Your task to perform on an android device: see tabs open on other devices in the chrome app Image 0: 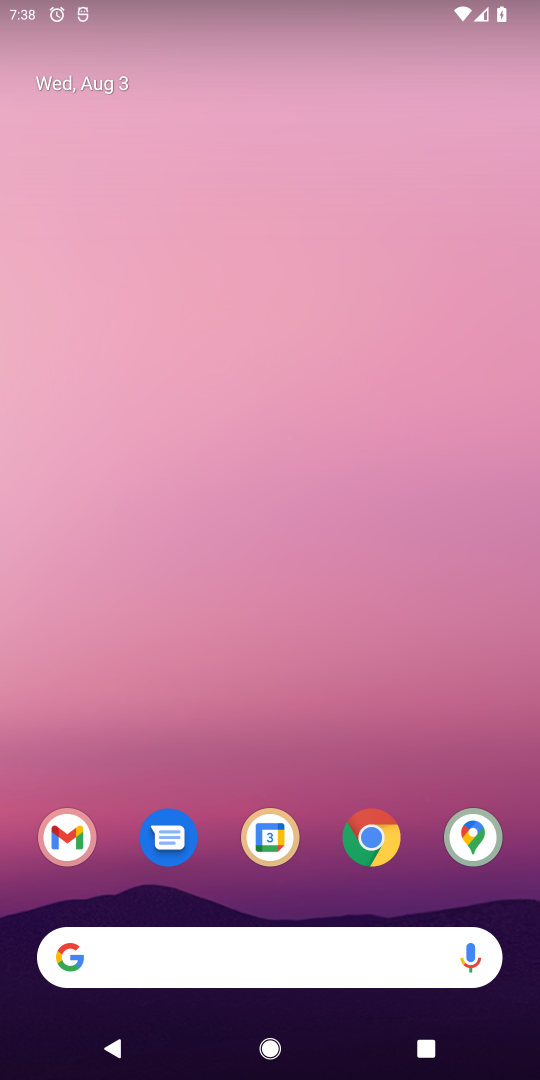
Step 0: press home button
Your task to perform on an android device: see tabs open on other devices in the chrome app Image 1: 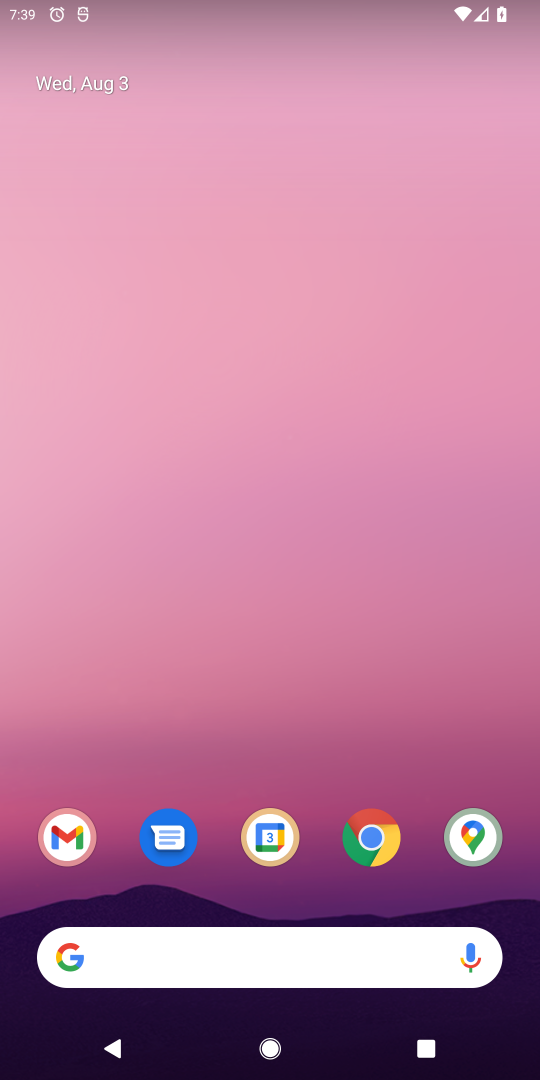
Step 1: click (379, 826)
Your task to perform on an android device: see tabs open on other devices in the chrome app Image 2: 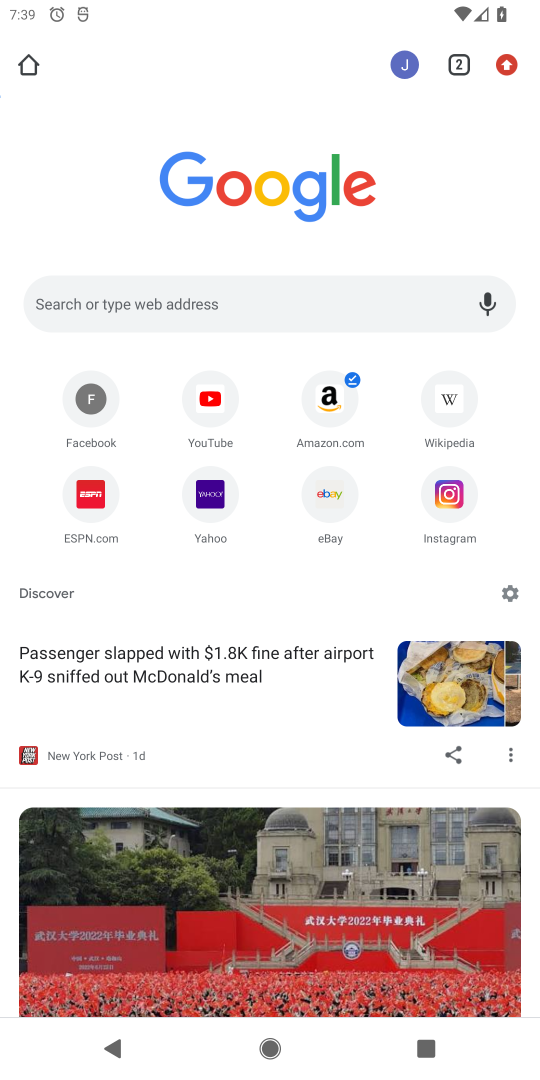
Step 2: task complete